Your task to perform on an android device: turn off javascript in the chrome app Image 0: 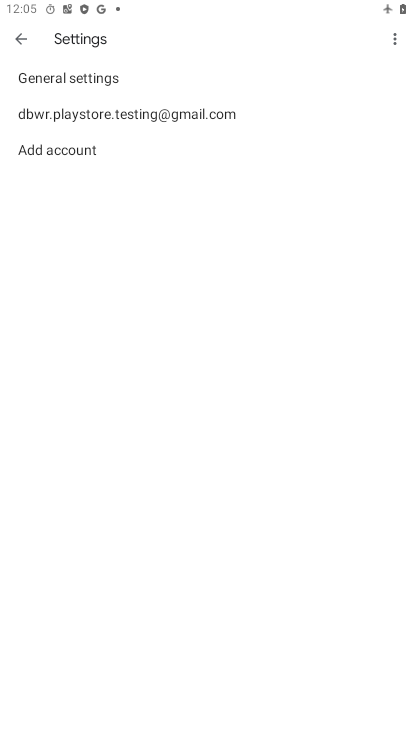
Step 0: click (272, 410)
Your task to perform on an android device: turn off javascript in the chrome app Image 1: 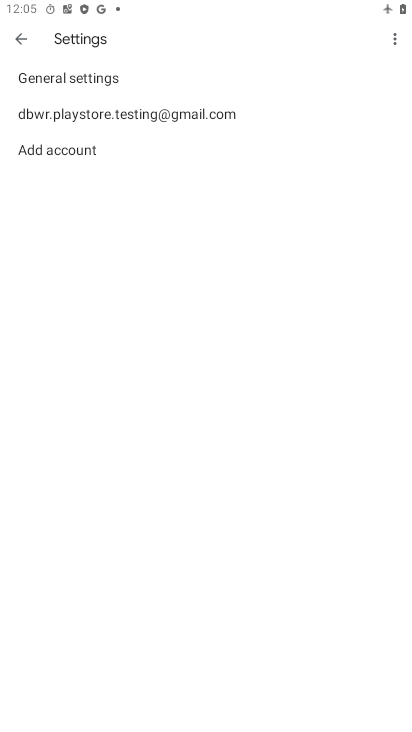
Step 1: press home button
Your task to perform on an android device: turn off javascript in the chrome app Image 2: 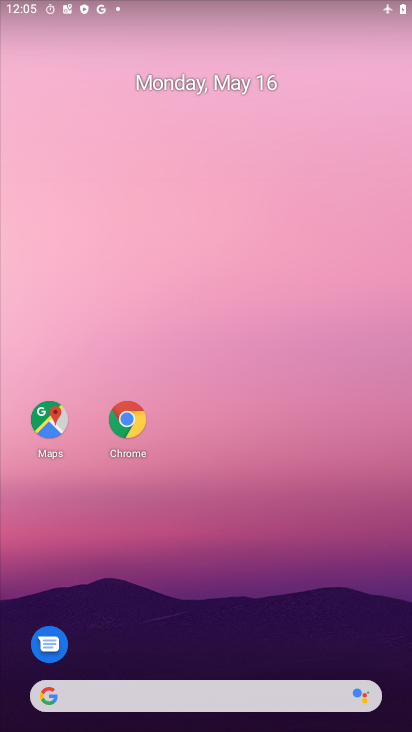
Step 2: drag from (200, 520) to (196, 62)
Your task to perform on an android device: turn off javascript in the chrome app Image 3: 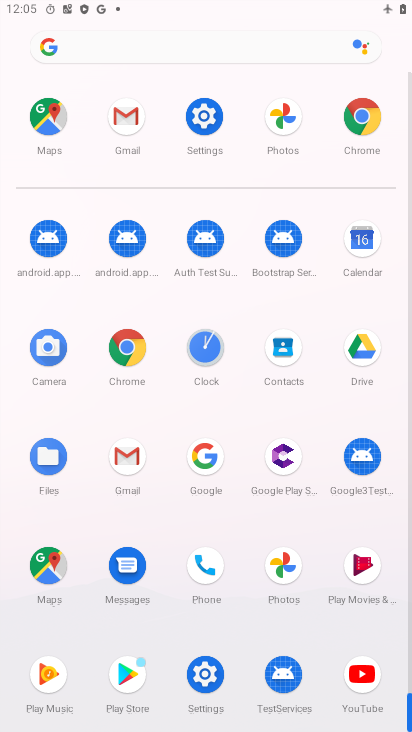
Step 3: click (364, 114)
Your task to perform on an android device: turn off javascript in the chrome app Image 4: 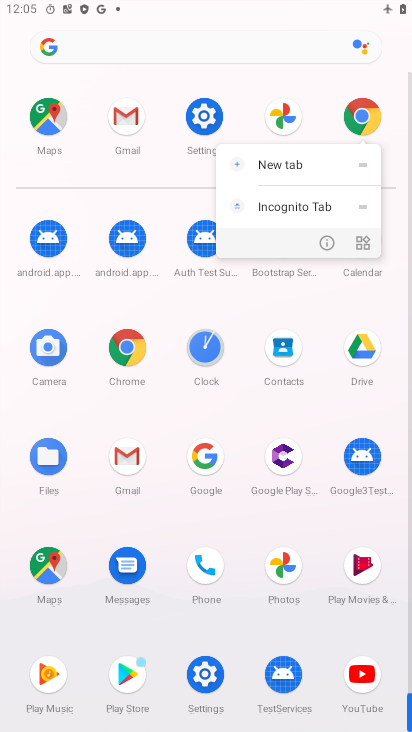
Step 4: click (324, 235)
Your task to perform on an android device: turn off javascript in the chrome app Image 5: 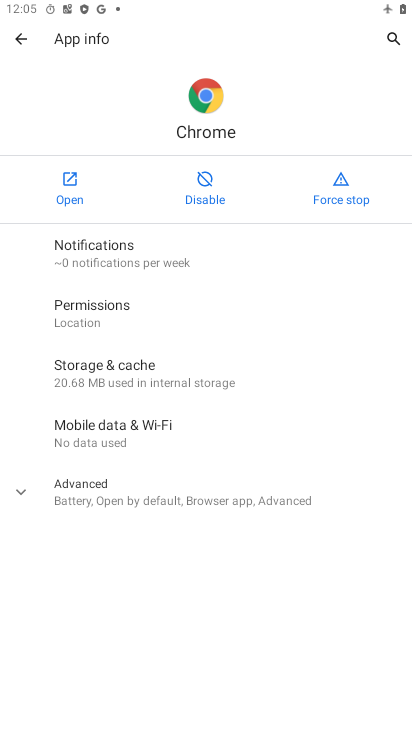
Step 5: click (70, 186)
Your task to perform on an android device: turn off javascript in the chrome app Image 6: 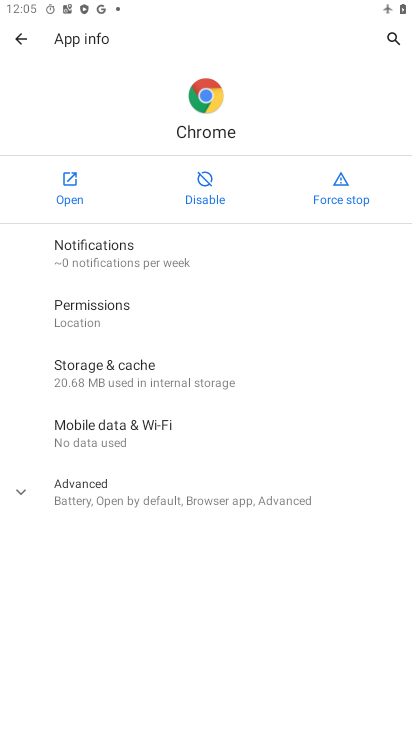
Step 6: click (70, 186)
Your task to perform on an android device: turn off javascript in the chrome app Image 7: 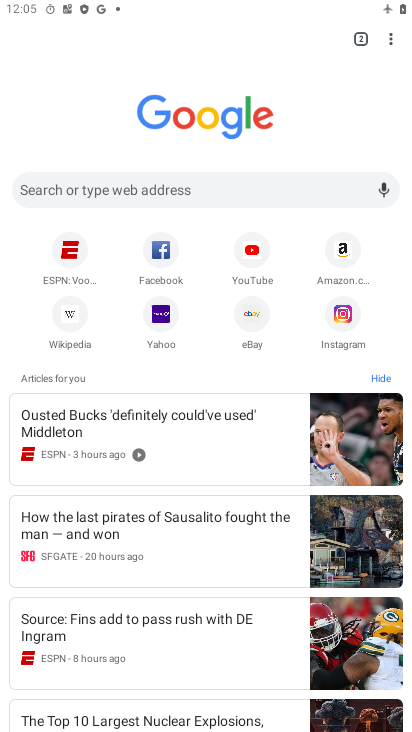
Step 7: drag from (395, 41) to (288, 326)
Your task to perform on an android device: turn off javascript in the chrome app Image 8: 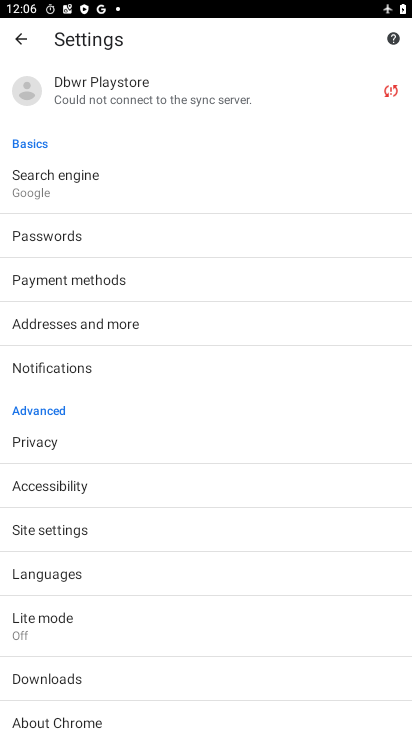
Step 8: click (78, 535)
Your task to perform on an android device: turn off javascript in the chrome app Image 9: 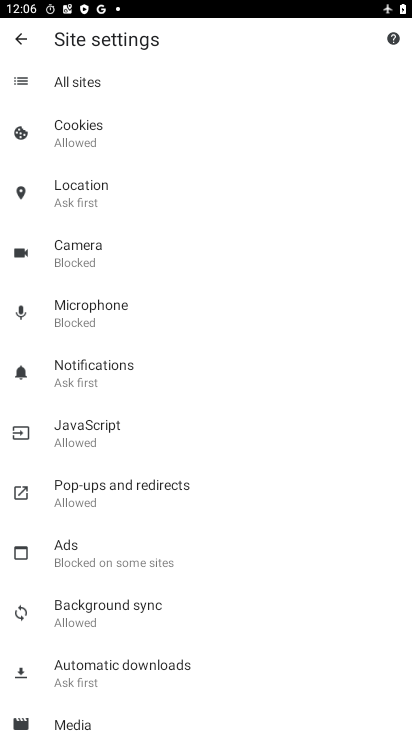
Step 9: click (103, 426)
Your task to perform on an android device: turn off javascript in the chrome app Image 10: 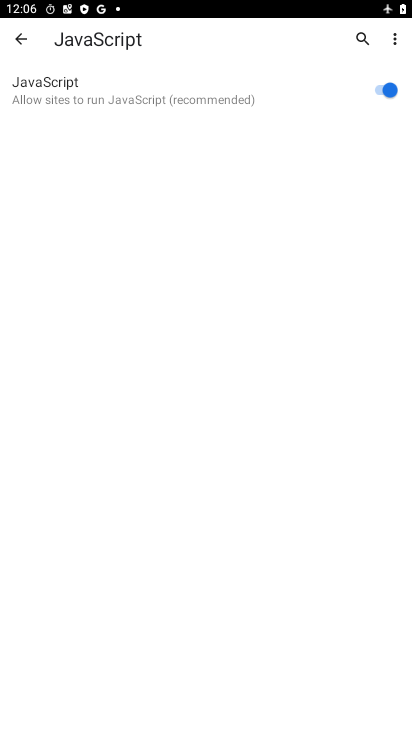
Step 10: click (383, 93)
Your task to perform on an android device: turn off javascript in the chrome app Image 11: 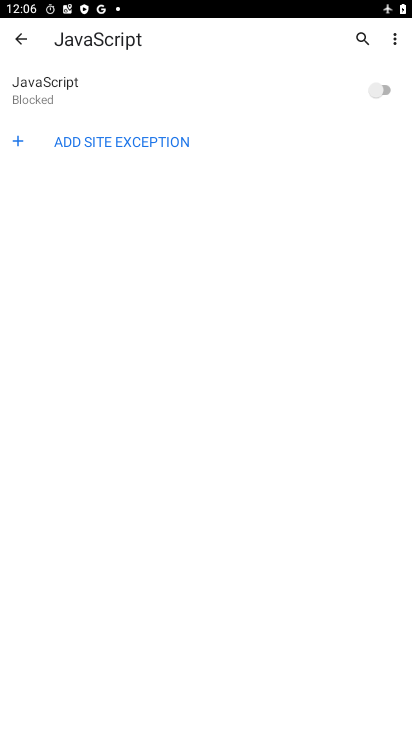
Step 11: task complete